Your task to perform on an android device: toggle improve location accuracy Image 0: 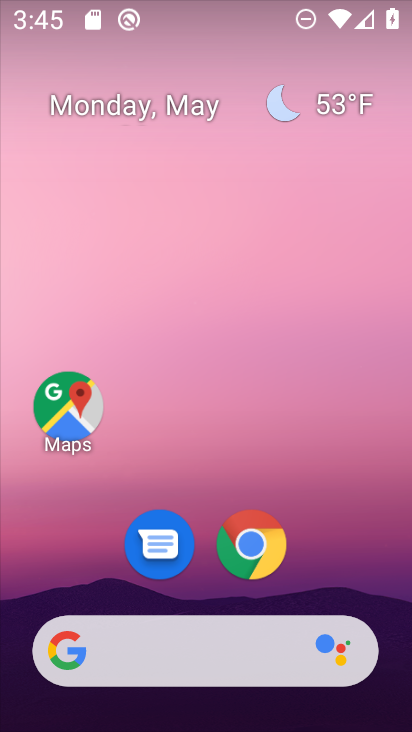
Step 0: drag from (132, 598) to (107, 8)
Your task to perform on an android device: toggle improve location accuracy Image 1: 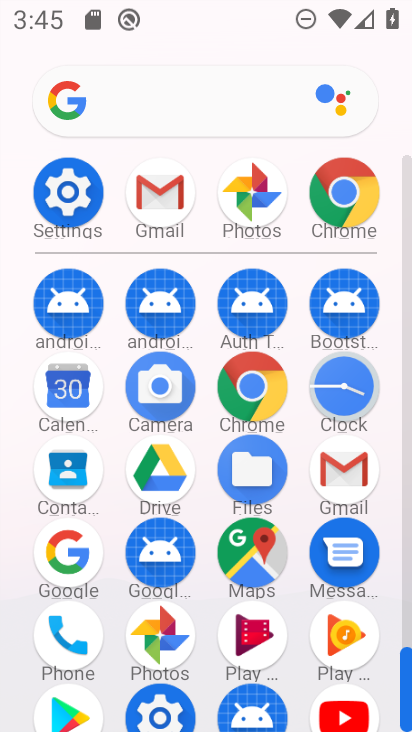
Step 1: click (55, 205)
Your task to perform on an android device: toggle improve location accuracy Image 2: 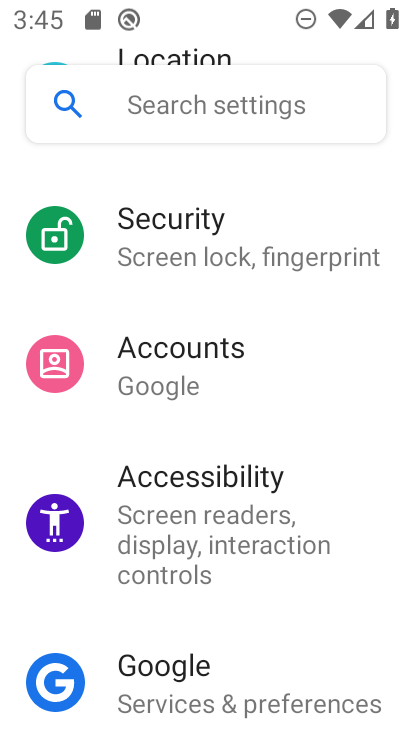
Step 2: drag from (294, 662) to (235, 69)
Your task to perform on an android device: toggle improve location accuracy Image 3: 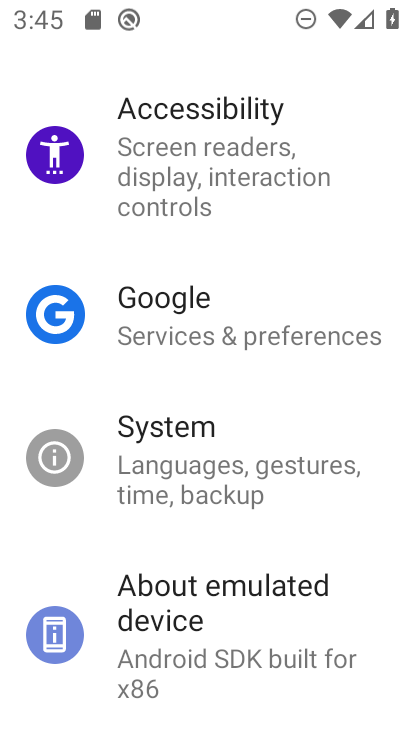
Step 3: drag from (308, 210) to (301, 662)
Your task to perform on an android device: toggle improve location accuracy Image 4: 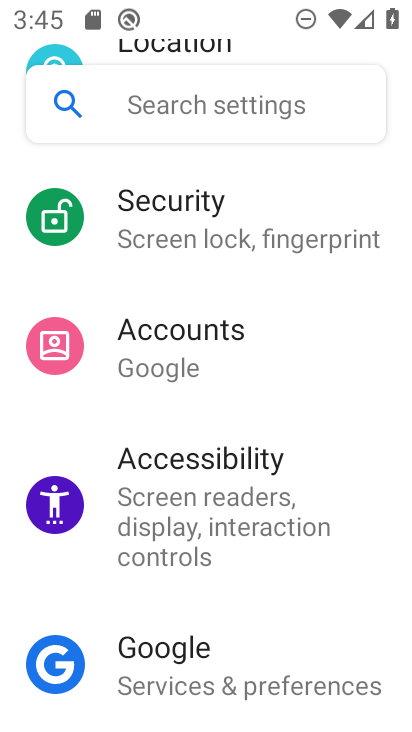
Step 4: drag from (284, 190) to (310, 568)
Your task to perform on an android device: toggle improve location accuracy Image 5: 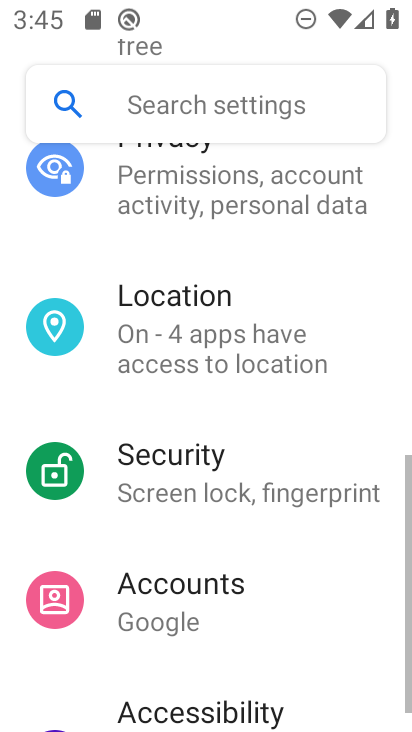
Step 5: click (225, 305)
Your task to perform on an android device: toggle improve location accuracy Image 6: 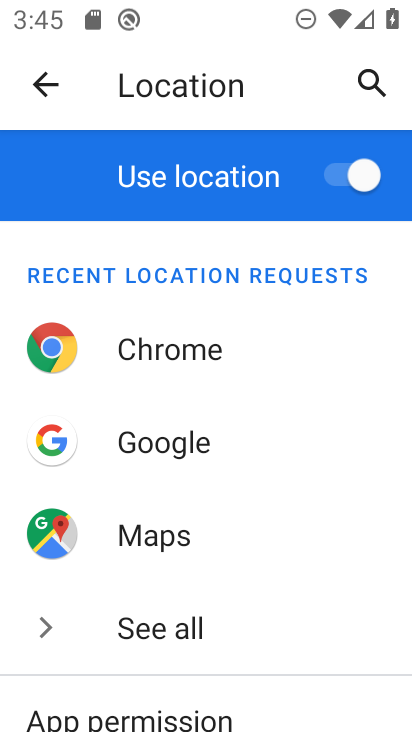
Step 6: drag from (289, 691) to (330, 179)
Your task to perform on an android device: toggle improve location accuracy Image 7: 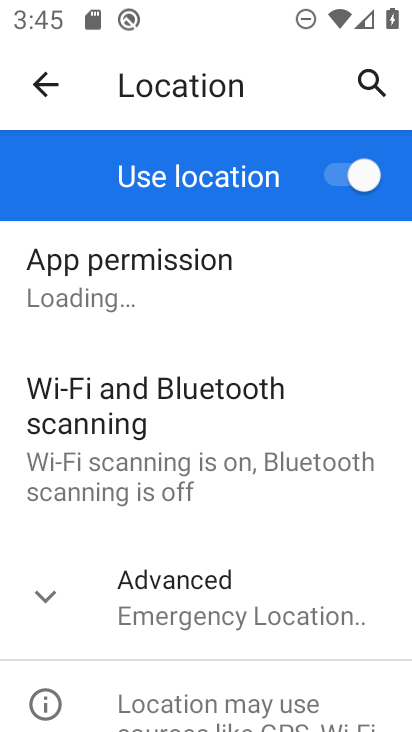
Step 7: drag from (247, 641) to (229, 203)
Your task to perform on an android device: toggle improve location accuracy Image 8: 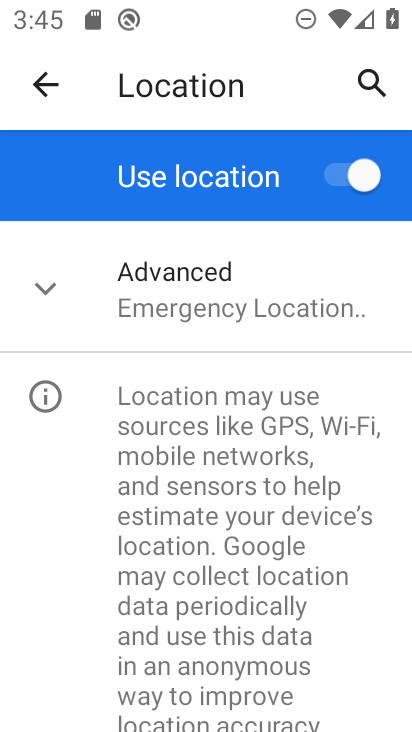
Step 8: click (265, 311)
Your task to perform on an android device: toggle improve location accuracy Image 9: 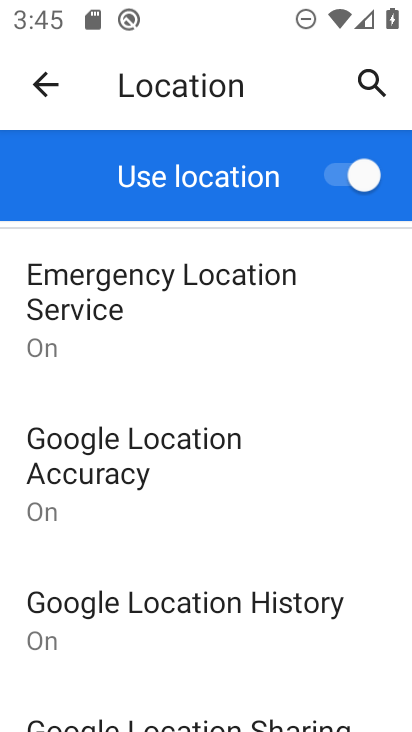
Step 9: click (147, 446)
Your task to perform on an android device: toggle improve location accuracy Image 10: 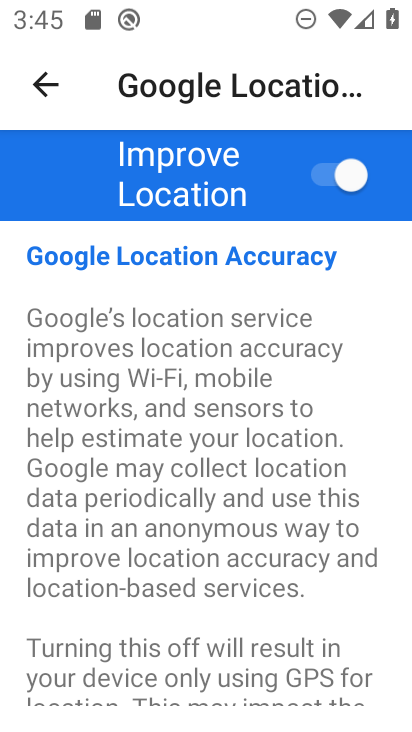
Step 10: click (343, 168)
Your task to perform on an android device: toggle improve location accuracy Image 11: 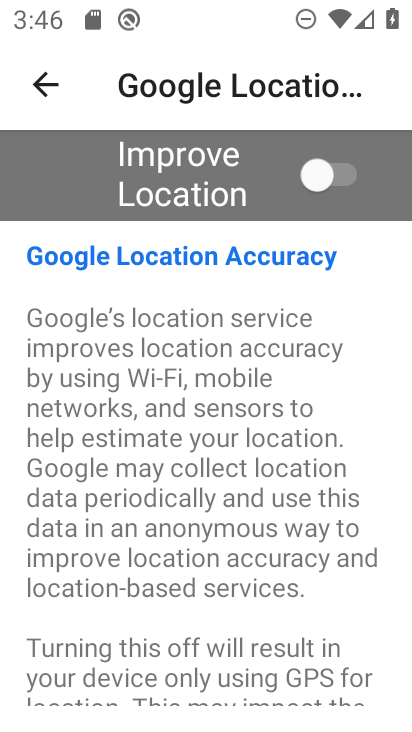
Step 11: task complete